Your task to perform on an android device: Open Yahoo.com Image 0: 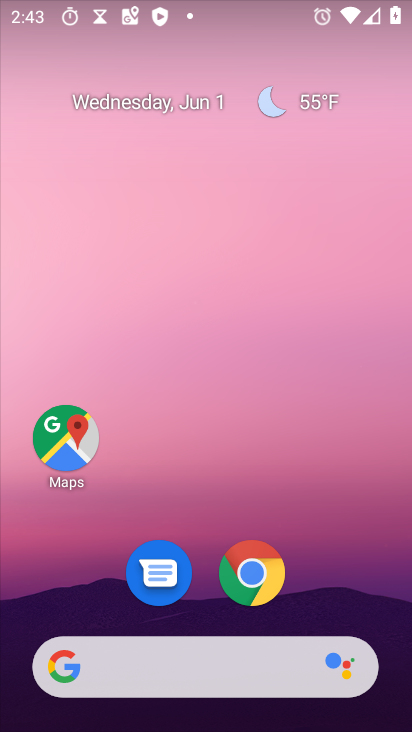
Step 0: drag from (382, 567) to (396, 88)
Your task to perform on an android device: Open Yahoo.com Image 1: 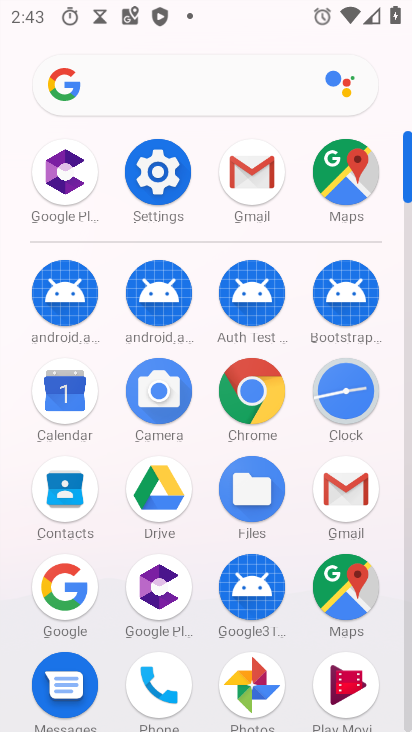
Step 1: click (259, 426)
Your task to perform on an android device: Open Yahoo.com Image 2: 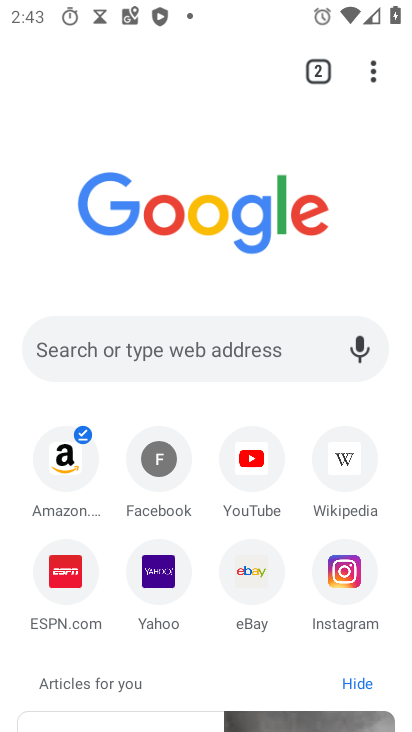
Step 2: click (222, 364)
Your task to perform on an android device: Open Yahoo.com Image 3: 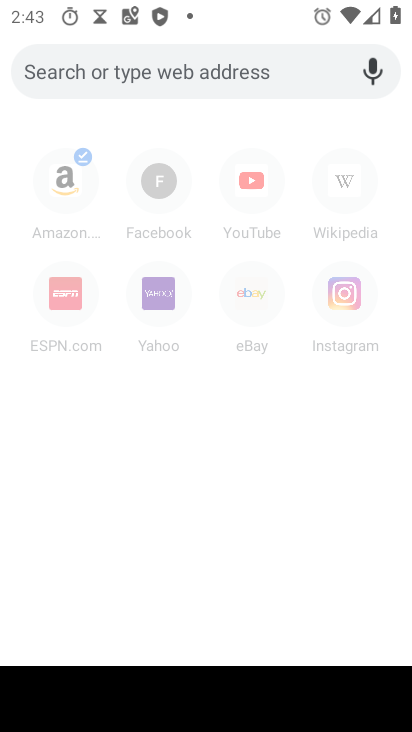
Step 3: click (166, 306)
Your task to perform on an android device: Open Yahoo.com Image 4: 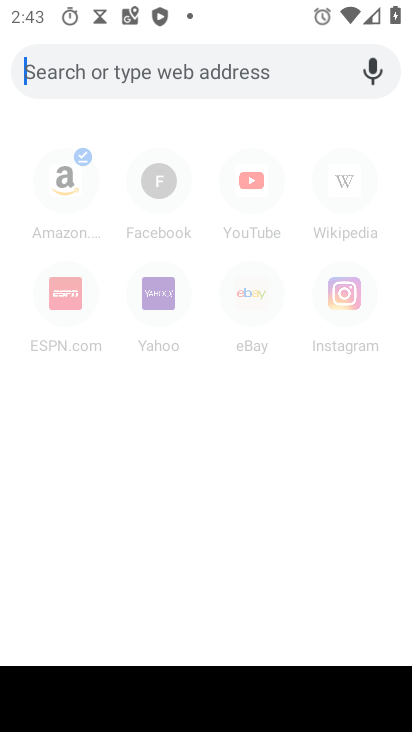
Step 4: click (165, 306)
Your task to perform on an android device: Open Yahoo.com Image 5: 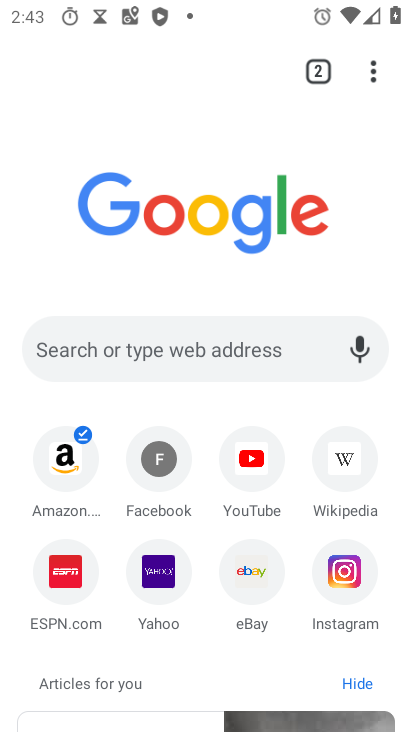
Step 5: click (141, 591)
Your task to perform on an android device: Open Yahoo.com Image 6: 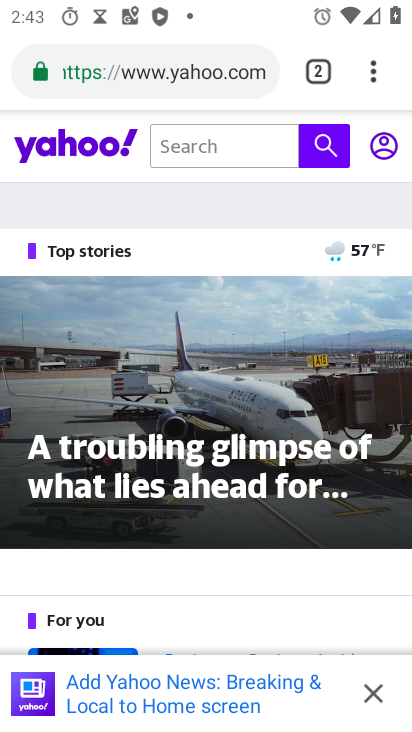
Step 6: task complete